Your task to perform on an android device: open app "Google Sheets" Image 0: 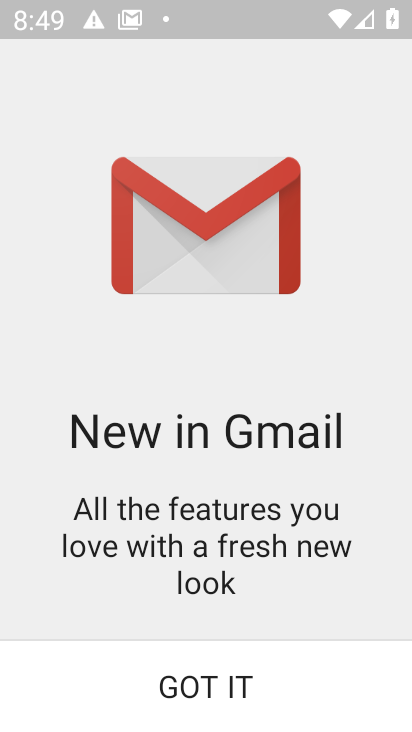
Step 0: press home button
Your task to perform on an android device: open app "Google Sheets" Image 1: 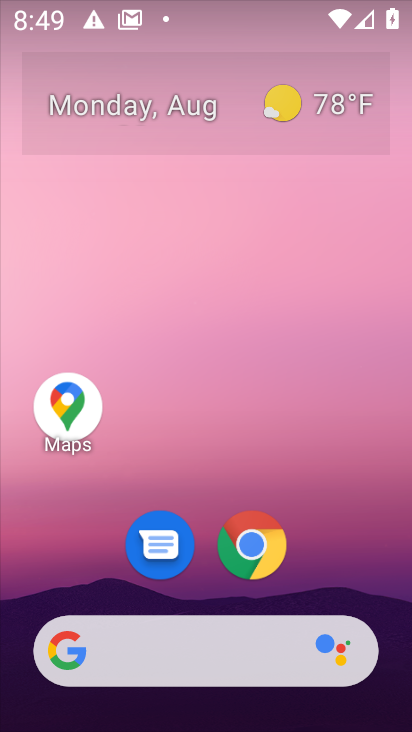
Step 1: drag from (373, 596) to (373, 151)
Your task to perform on an android device: open app "Google Sheets" Image 2: 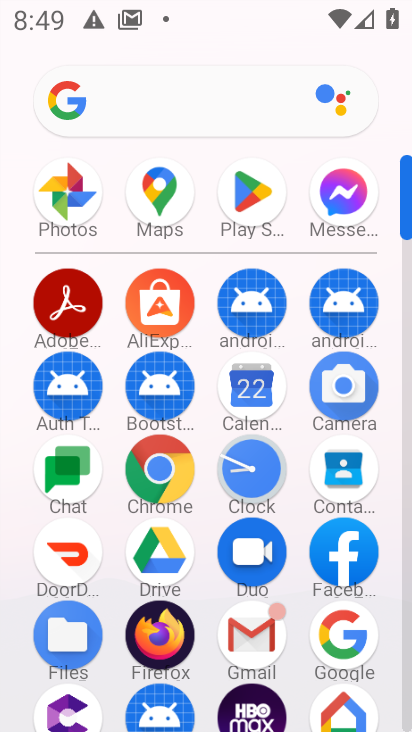
Step 2: click (258, 197)
Your task to perform on an android device: open app "Google Sheets" Image 3: 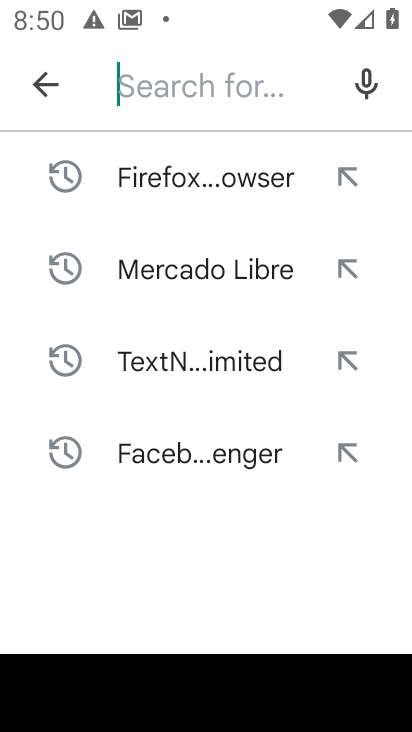
Step 3: type "Google Sheets"
Your task to perform on an android device: open app "Google Sheets" Image 4: 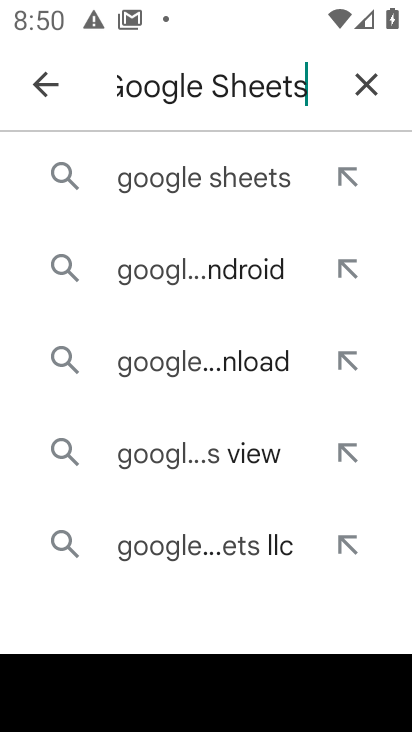
Step 4: click (239, 190)
Your task to perform on an android device: open app "Google Sheets" Image 5: 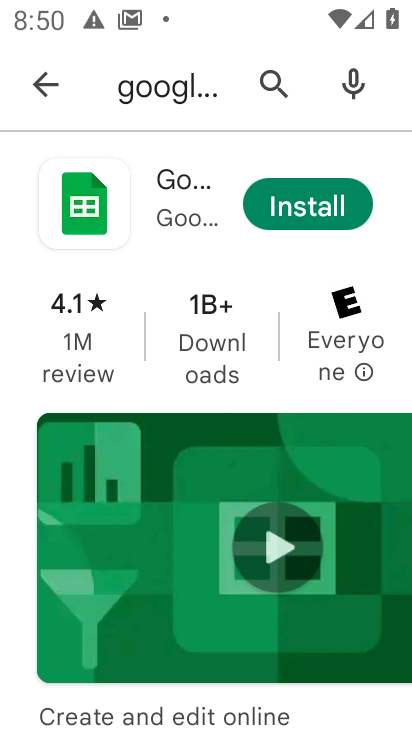
Step 5: task complete